Your task to perform on an android device: Open the stopwatch Image 0: 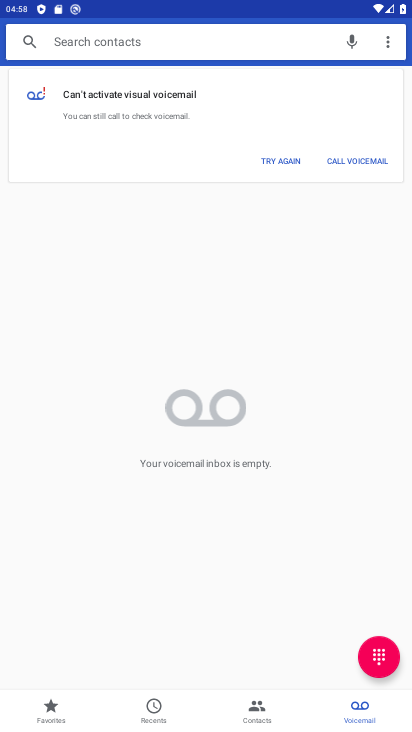
Step 0: press back button
Your task to perform on an android device: Open the stopwatch Image 1: 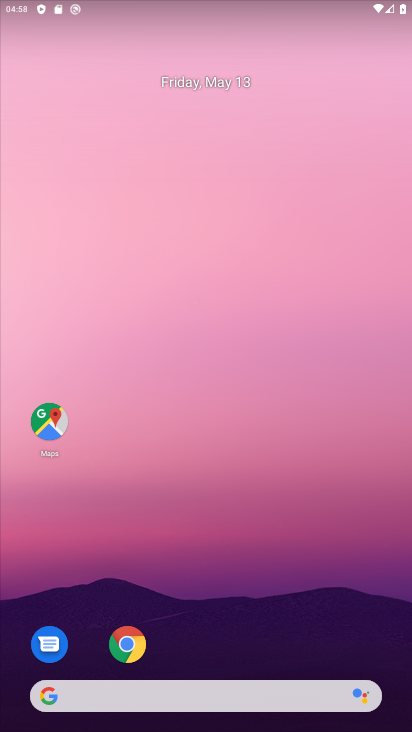
Step 1: drag from (161, 630) to (245, 34)
Your task to perform on an android device: Open the stopwatch Image 2: 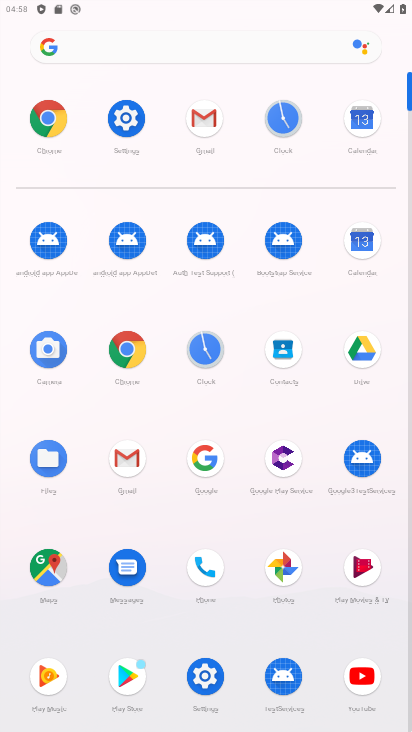
Step 2: click (290, 117)
Your task to perform on an android device: Open the stopwatch Image 3: 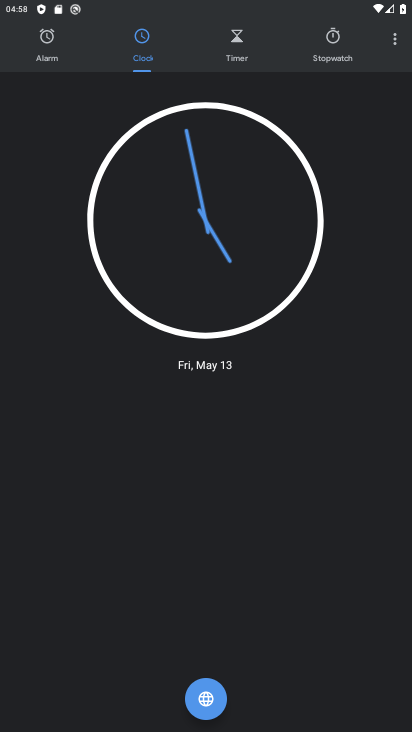
Step 3: click (329, 53)
Your task to perform on an android device: Open the stopwatch Image 4: 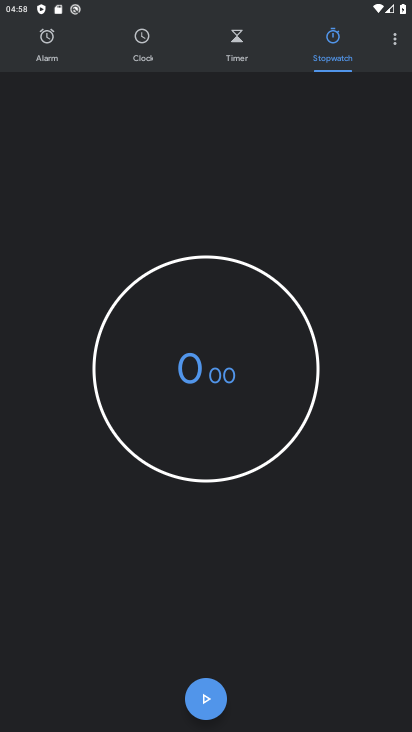
Step 4: task complete